Your task to perform on an android device: Is it going to rain today? Image 0: 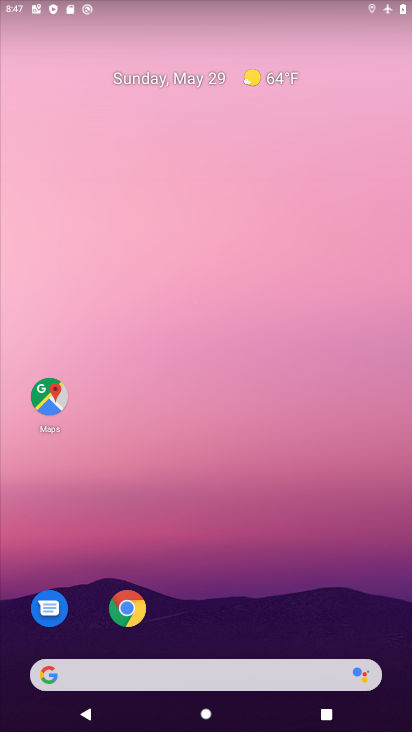
Step 0: click (215, 675)
Your task to perform on an android device: Is it going to rain today? Image 1: 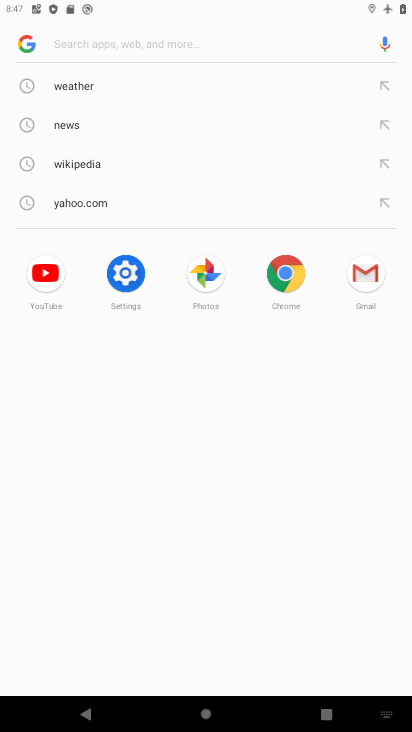
Step 1: click (67, 87)
Your task to perform on an android device: Is it going to rain today? Image 2: 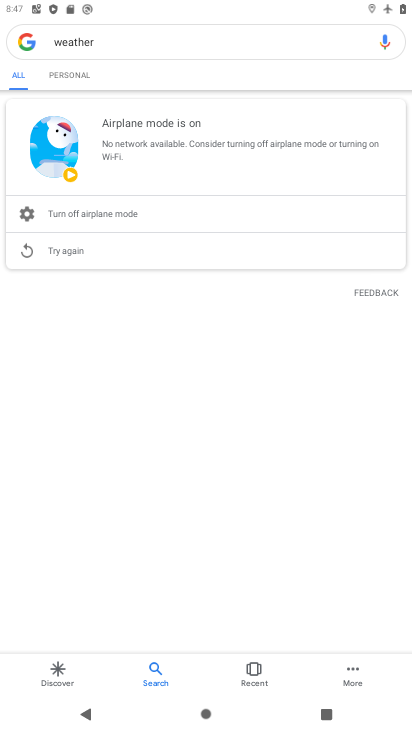
Step 2: task complete